Your task to perform on an android device: open the mobile data screen to see how much data has been used Image 0: 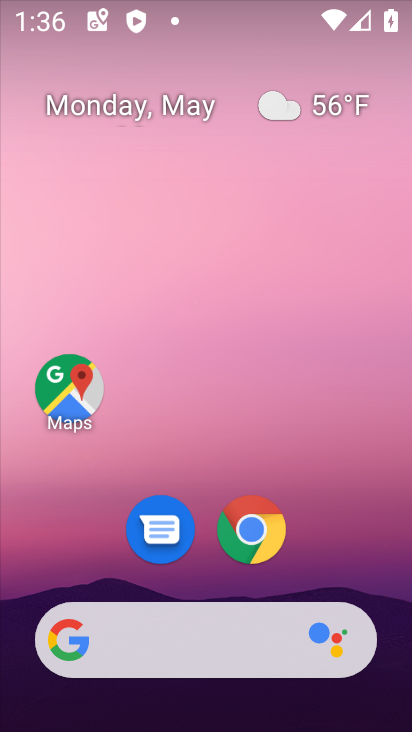
Step 0: drag from (326, 568) to (334, 65)
Your task to perform on an android device: open the mobile data screen to see how much data has been used Image 1: 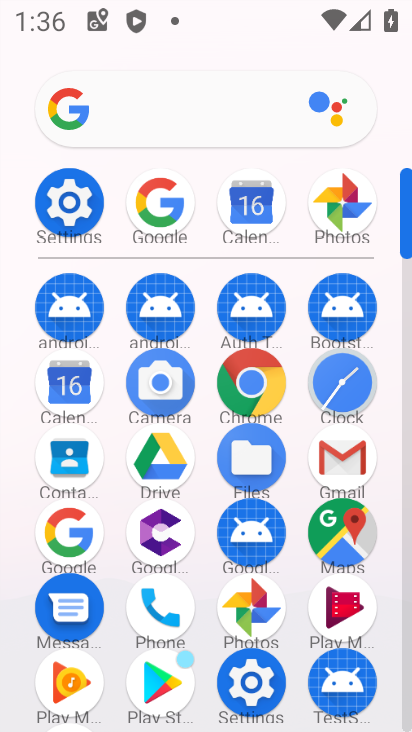
Step 1: click (61, 207)
Your task to perform on an android device: open the mobile data screen to see how much data has been used Image 2: 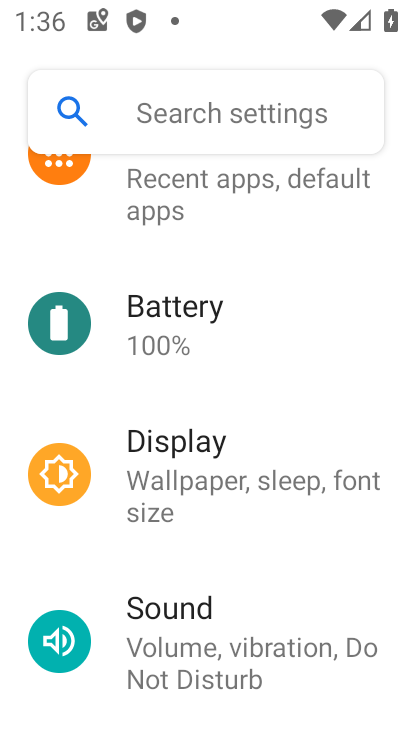
Step 2: drag from (213, 325) to (282, 629)
Your task to perform on an android device: open the mobile data screen to see how much data has been used Image 3: 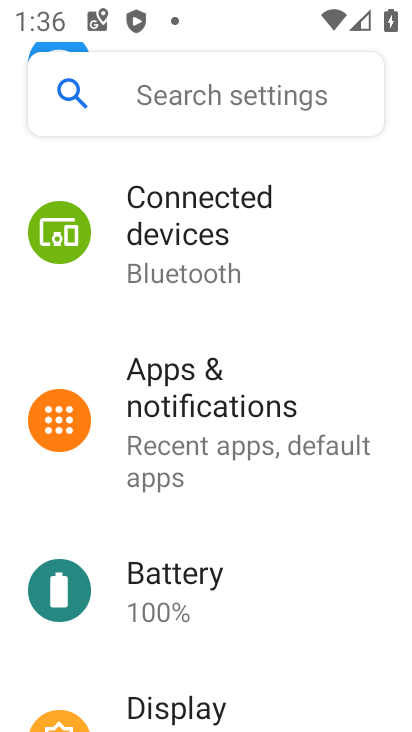
Step 3: drag from (260, 311) to (263, 579)
Your task to perform on an android device: open the mobile data screen to see how much data has been used Image 4: 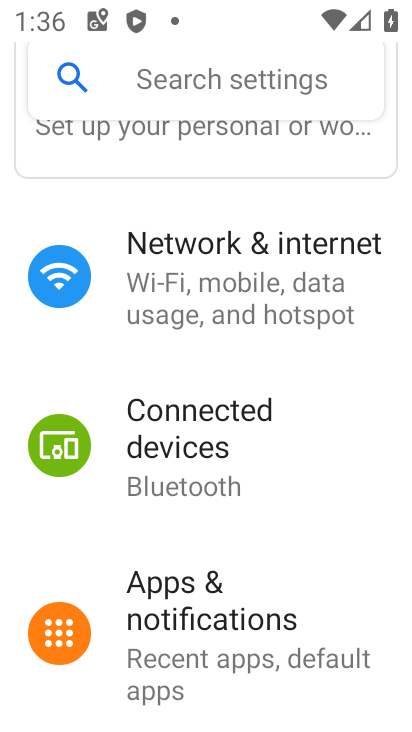
Step 4: click (291, 309)
Your task to perform on an android device: open the mobile data screen to see how much data has been used Image 5: 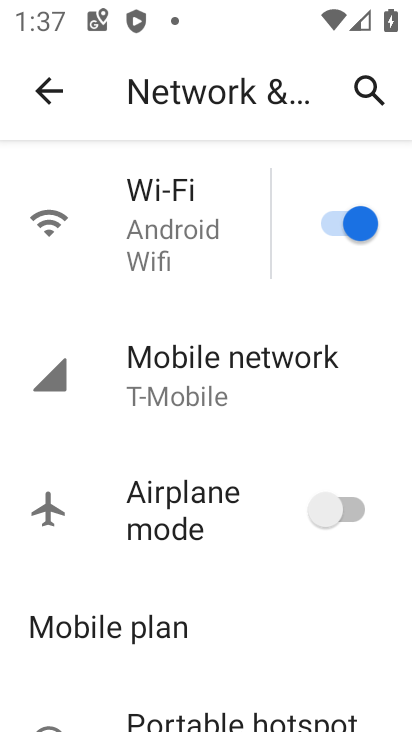
Step 5: click (174, 383)
Your task to perform on an android device: open the mobile data screen to see how much data has been used Image 6: 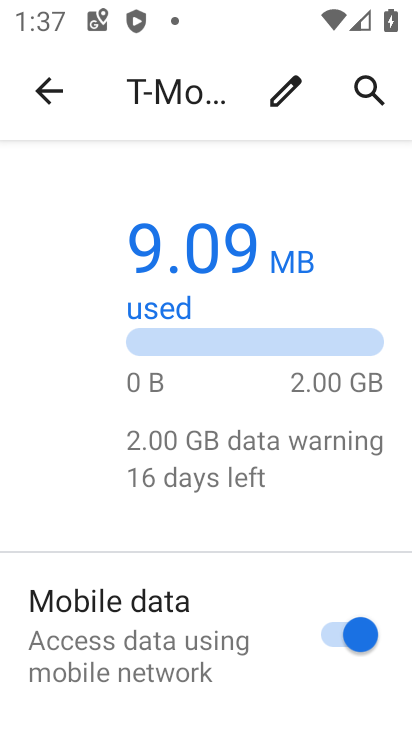
Step 6: drag from (179, 619) to (178, 170)
Your task to perform on an android device: open the mobile data screen to see how much data has been used Image 7: 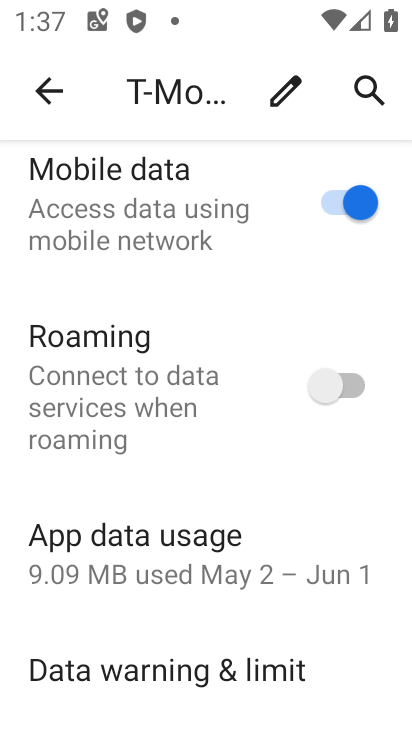
Step 7: click (142, 556)
Your task to perform on an android device: open the mobile data screen to see how much data has been used Image 8: 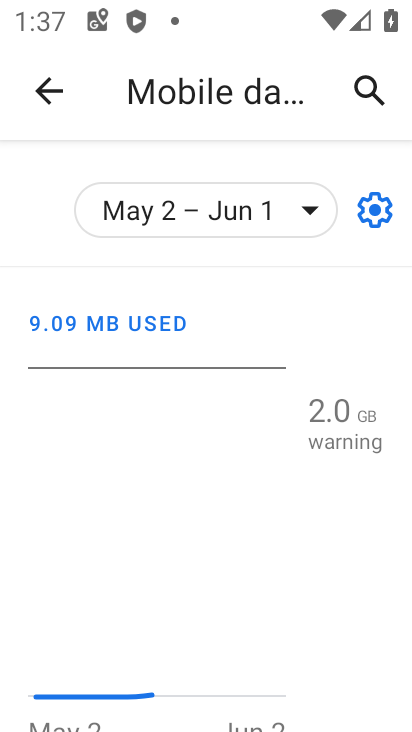
Step 8: task complete